Your task to perform on an android device: move an email to a new category in the gmail app Image 0: 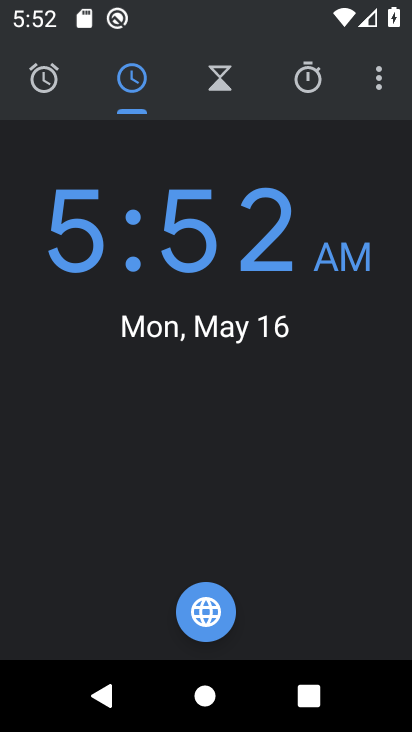
Step 0: press home button
Your task to perform on an android device: move an email to a new category in the gmail app Image 1: 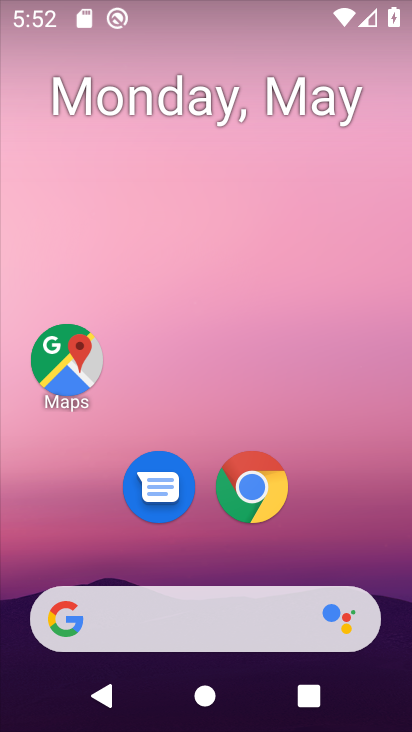
Step 1: drag from (202, 554) to (240, 105)
Your task to perform on an android device: move an email to a new category in the gmail app Image 2: 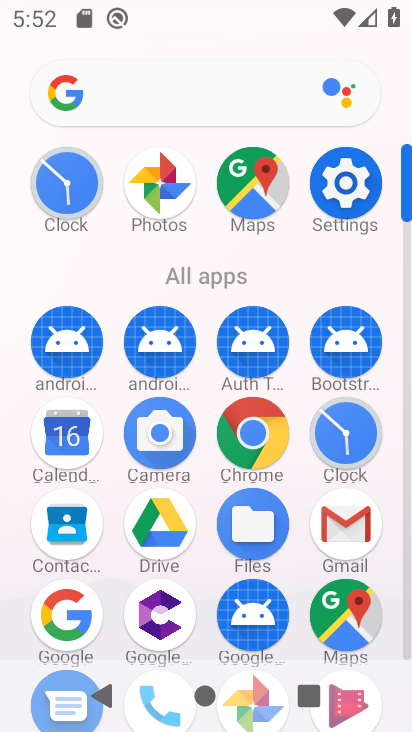
Step 2: click (345, 517)
Your task to perform on an android device: move an email to a new category in the gmail app Image 3: 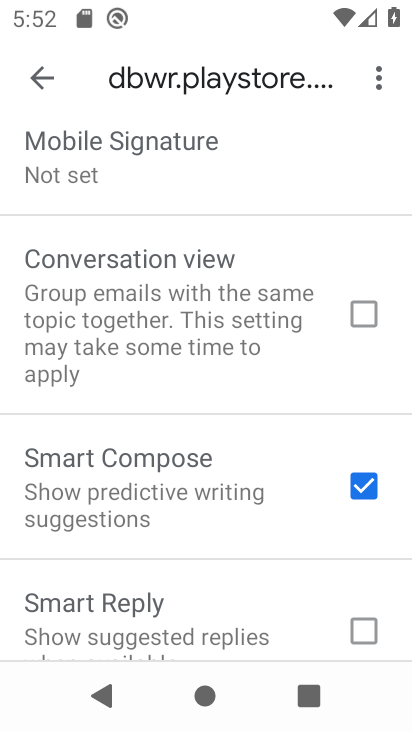
Step 3: click (44, 71)
Your task to perform on an android device: move an email to a new category in the gmail app Image 4: 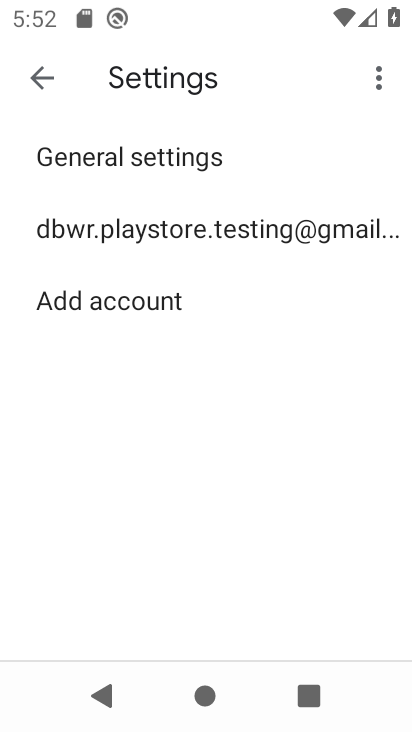
Step 4: click (44, 71)
Your task to perform on an android device: move an email to a new category in the gmail app Image 5: 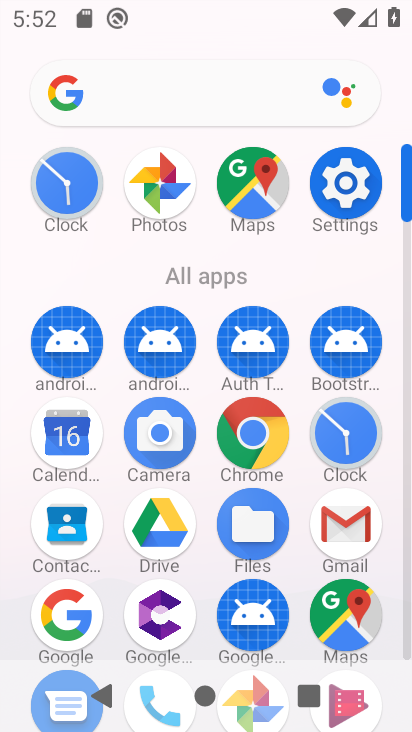
Step 5: click (349, 517)
Your task to perform on an android device: move an email to a new category in the gmail app Image 6: 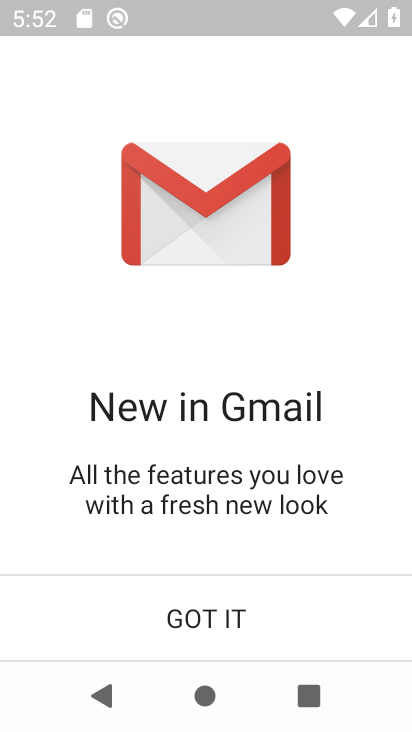
Step 6: click (219, 619)
Your task to perform on an android device: move an email to a new category in the gmail app Image 7: 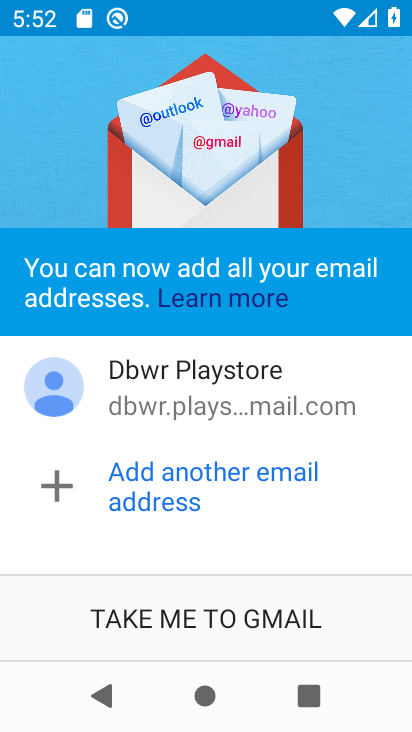
Step 7: click (201, 623)
Your task to perform on an android device: move an email to a new category in the gmail app Image 8: 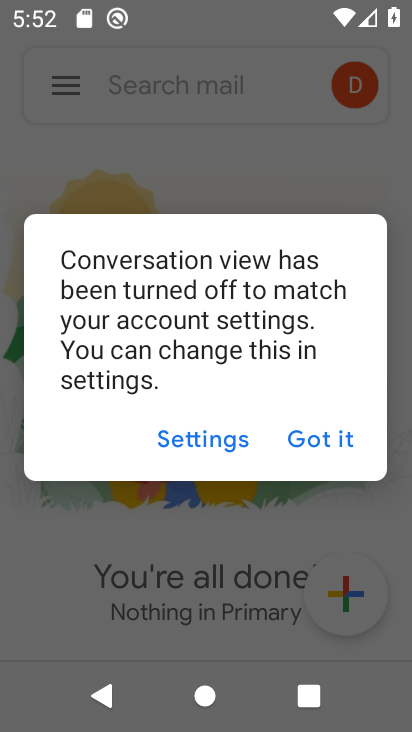
Step 8: click (316, 434)
Your task to perform on an android device: move an email to a new category in the gmail app Image 9: 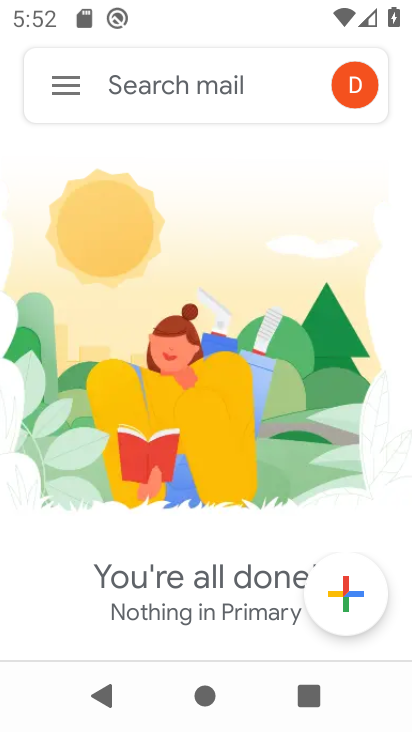
Step 9: task complete